Your task to perform on an android device: Show me the alarms in the clock app Image 0: 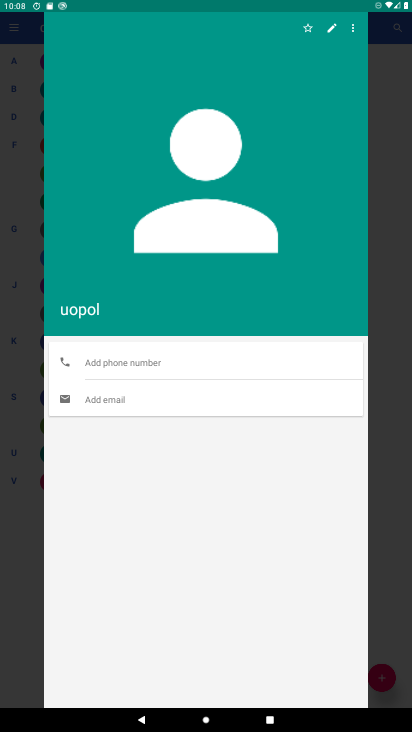
Step 0: press home button
Your task to perform on an android device: Show me the alarms in the clock app Image 1: 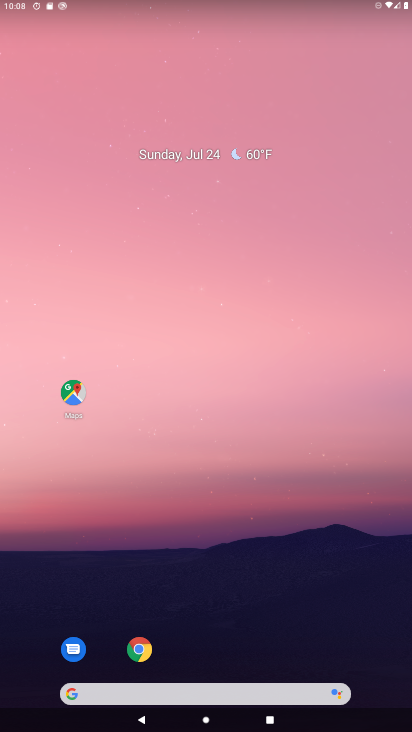
Step 1: drag from (268, 655) to (305, 18)
Your task to perform on an android device: Show me the alarms in the clock app Image 2: 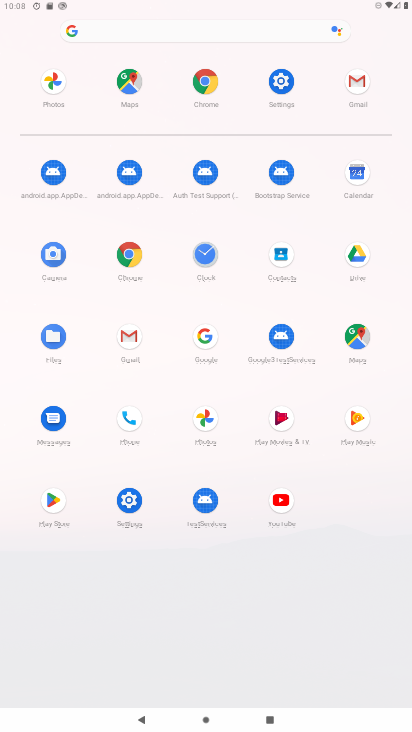
Step 2: click (198, 253)
Your task to perform on an android device: Show me the alarms in the clock app Image 3: 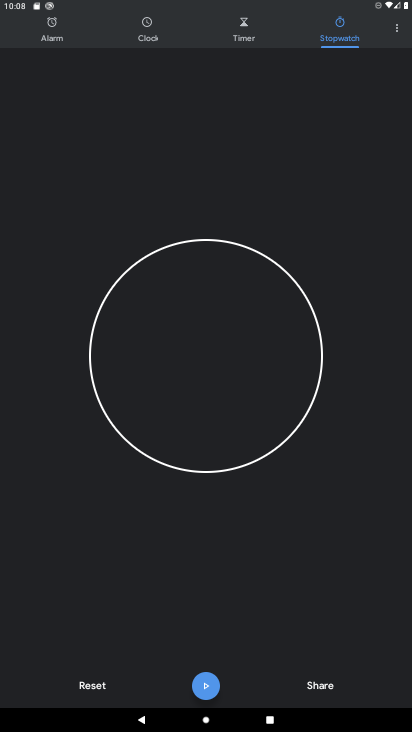
Step 3: click (43, 39)
Your task to perform on an android device: Show me the alarms in the clock app Image 4: 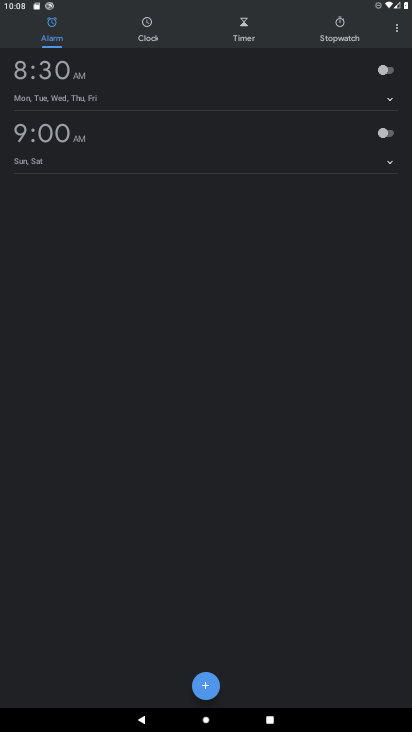
Step 4: task complete